Your task to perform on an android device: Go to Amazon Image 0: 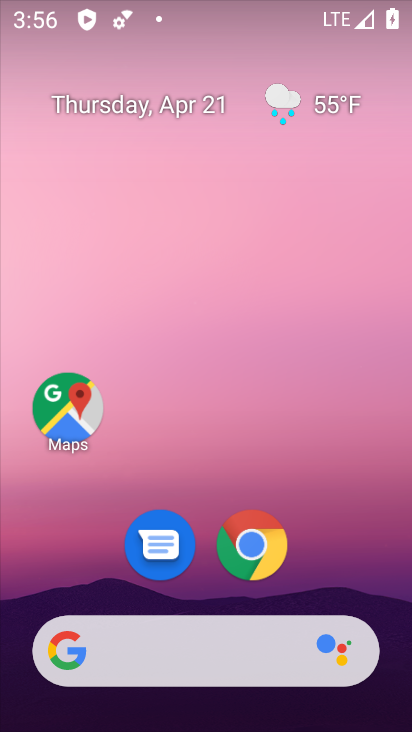
Step 0: drag from (218, 652) to (178, 132)
Your task to perform on an android device: Go to Amazon Image 1: 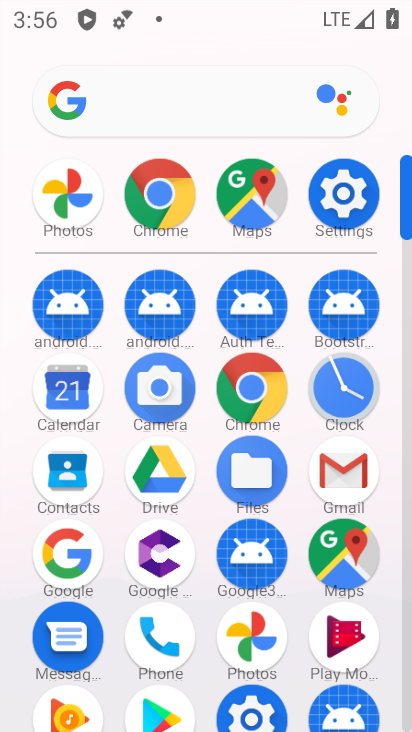
Step 1: click (135, 198)
Your task to perform on an android device: Go to Amazon Image 2: 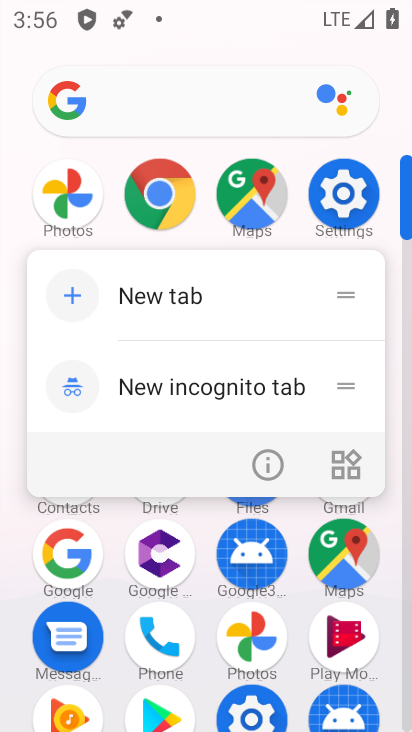
Step 2: click (135, 198)
Your task to perform on an android device: Go to Amazon Image 3: 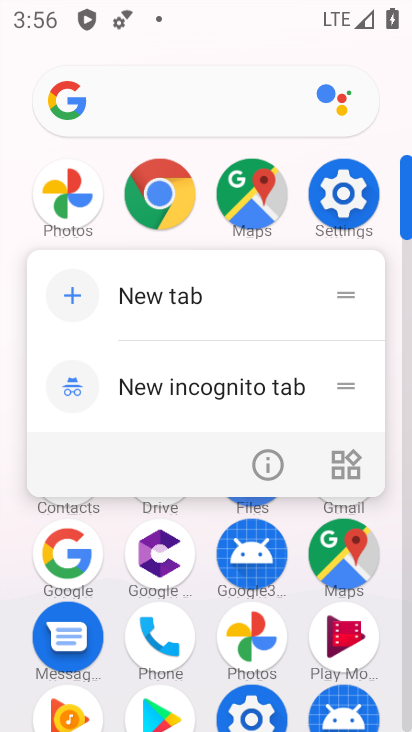
Step 3: click (135, 198)
Your task to perform on an android device: Go to Amazon Image 4: 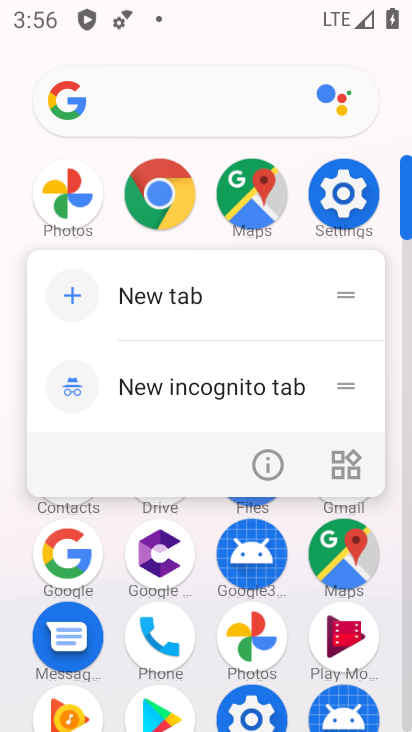
Step 4: click (135, 198)
Your task to perform on an android device: Go to Amazon Image 5: 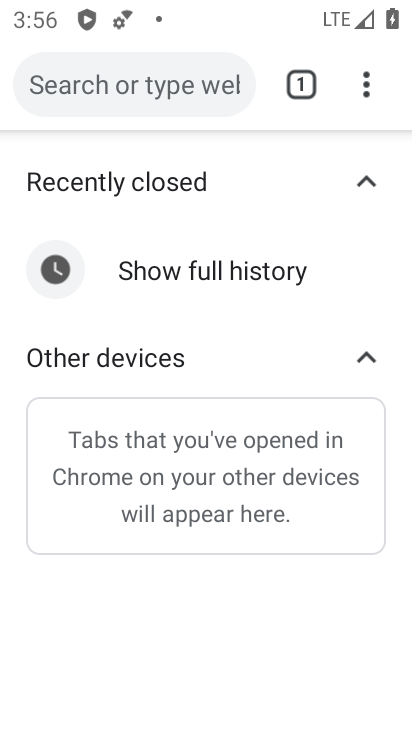
Step 5: click (191, 89)
Your task to perform on an android device: Go to Amazon Image 6: 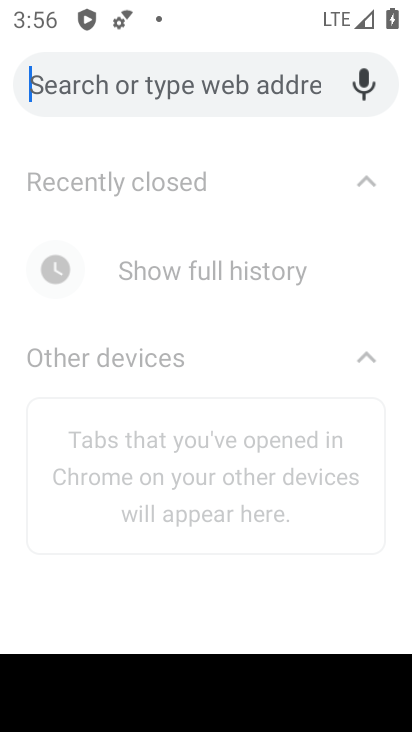
Step 6: type "amazon"
Your task to perform on an android device: Go to Amazon Image 7: 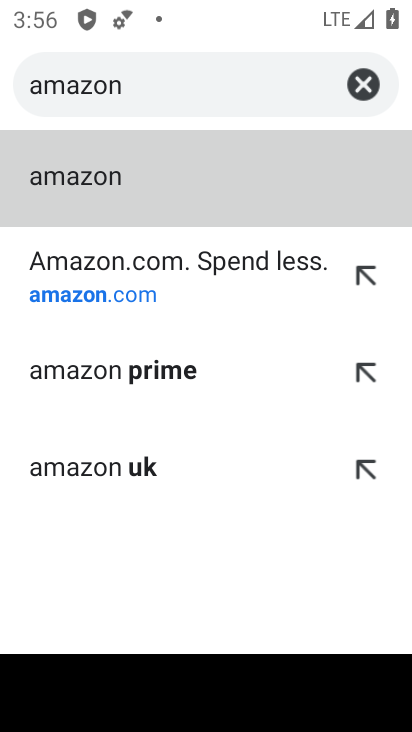
Step 7: click (115, 261)
Your task to perform on an android device: Go to Amazon Image 8: 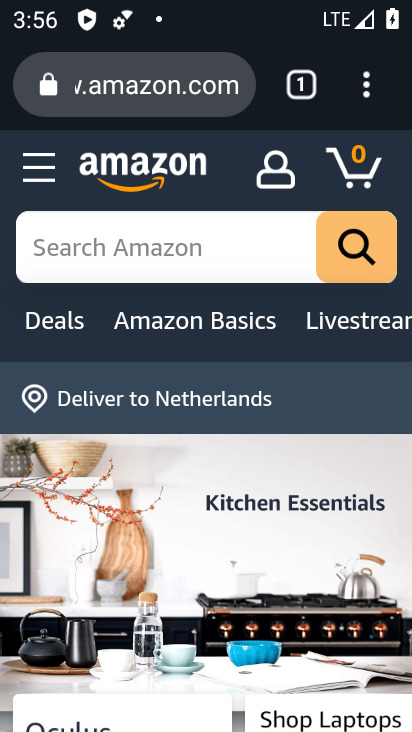
Step 8: task complete